Your task to perform on an android device: Open the calendar and show me this week's events Image 0: 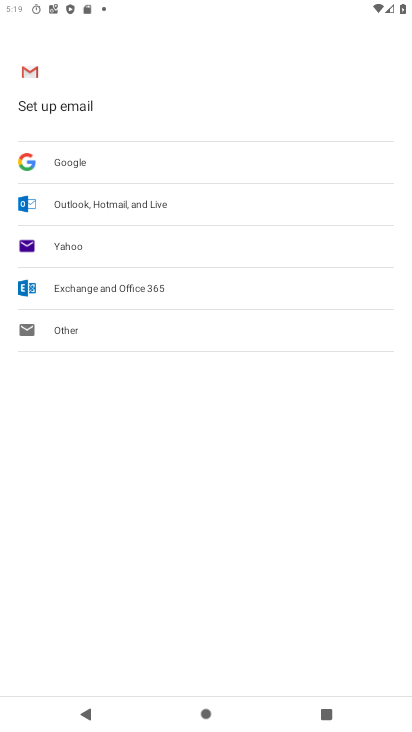
Step 0: press home button
Your task to perform on an android device: Open the calendar and show me this week's events Image 1: 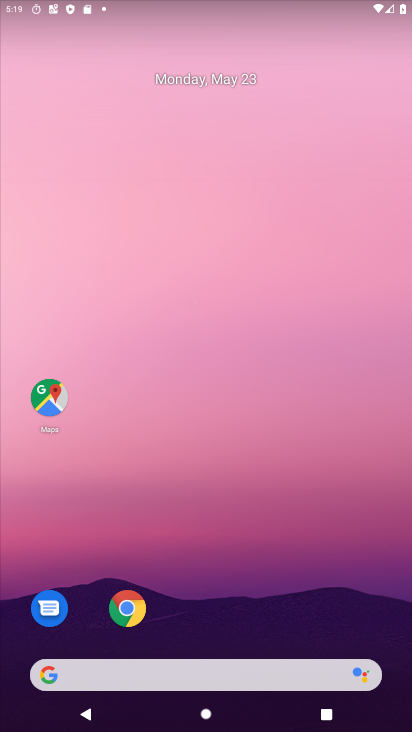
Step 1: drag from (216, 624) to (92, 0)
Your task to perform on an android device: Open the calendar and show me this week's events Image 2: 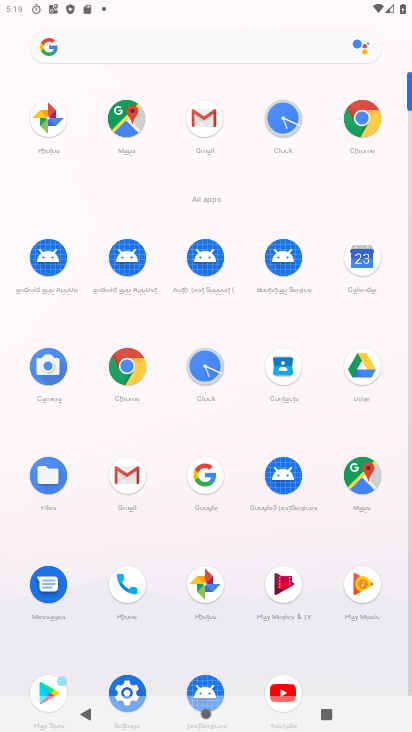
Step 2: click (363, 259)
Your task to perform on an android device: Open the calendar and show me this week's events Image 3: 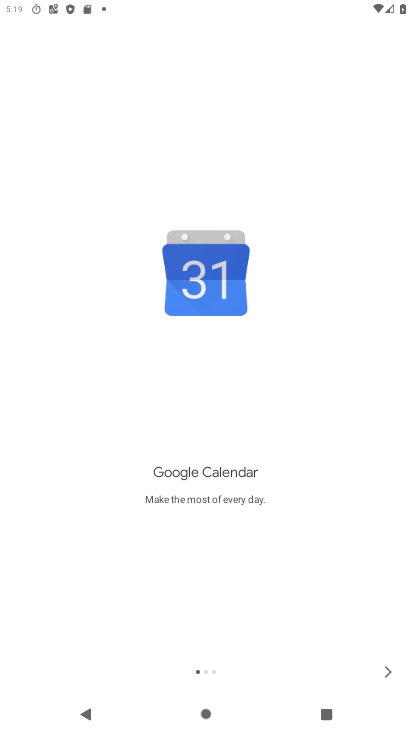
Step 3: click (385, 665)
Your task to perform on an android device: Open the calendar and show me this week's events Image 4: 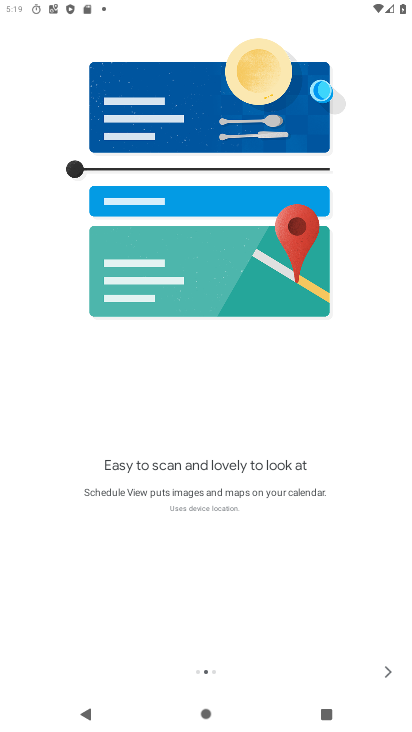
Step 4: click (394, 659)
Your task to perform on an android device: Open the calendar and show me this week's events Image 5: 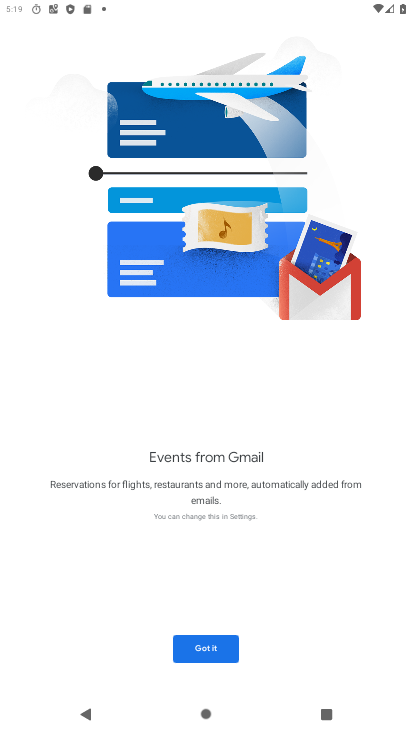
Step 5: click (215, 652)
Your task to perform on an android device: Open the calendar and show me this week's events Image 6: 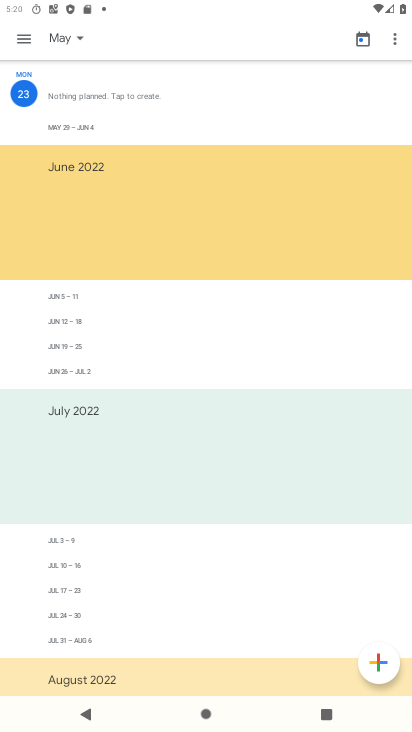
Step 6: click (27, 37)
Your task to perform on an android device: Open the calendar and show me this week's events Image 7: 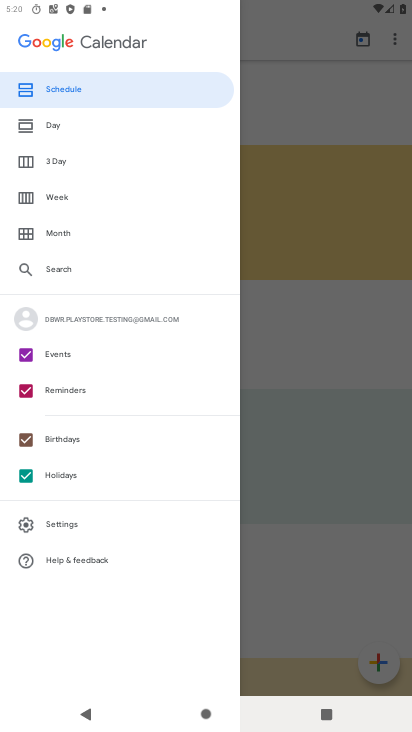
Step 7: click (60, 393)
Your task to perform on an android device: Open the calendar and show me this week's events Image 8: 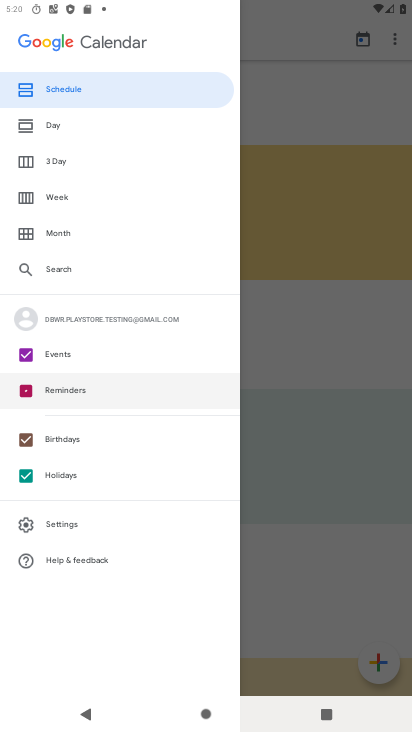
Step 8: click (68, 448)
Your task to perform on an android device: Open the calendar and show me this week's events Image 9: 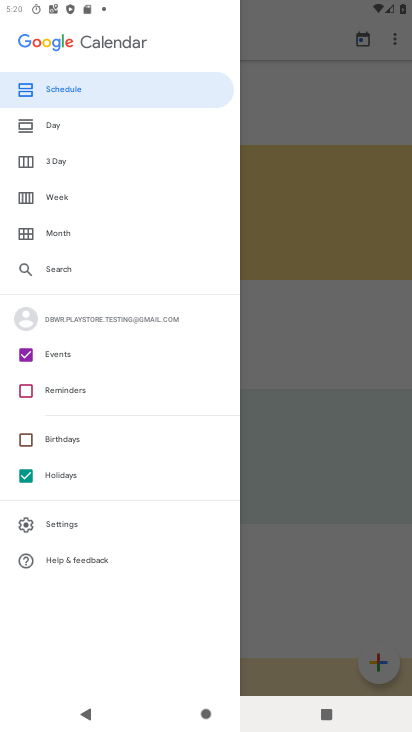
Step 9: click (64, 470)
Your task to perform on an android device: Open the calendar and show me this week's events Image 10: 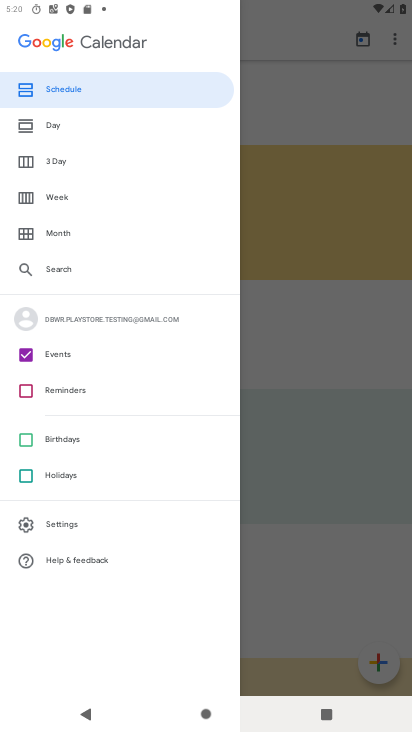
Step 10: click (62, 193)
Your task to perform on an android device: Open the calendar and show me this week's events Image 11: 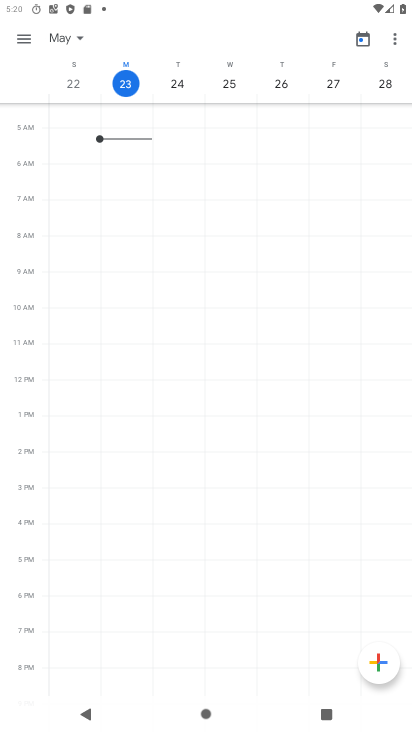
Step 11: task complete